Your task to perform on an android device: open app "Messages" (install if not already installed), go to login, and select forgot password Image 0: 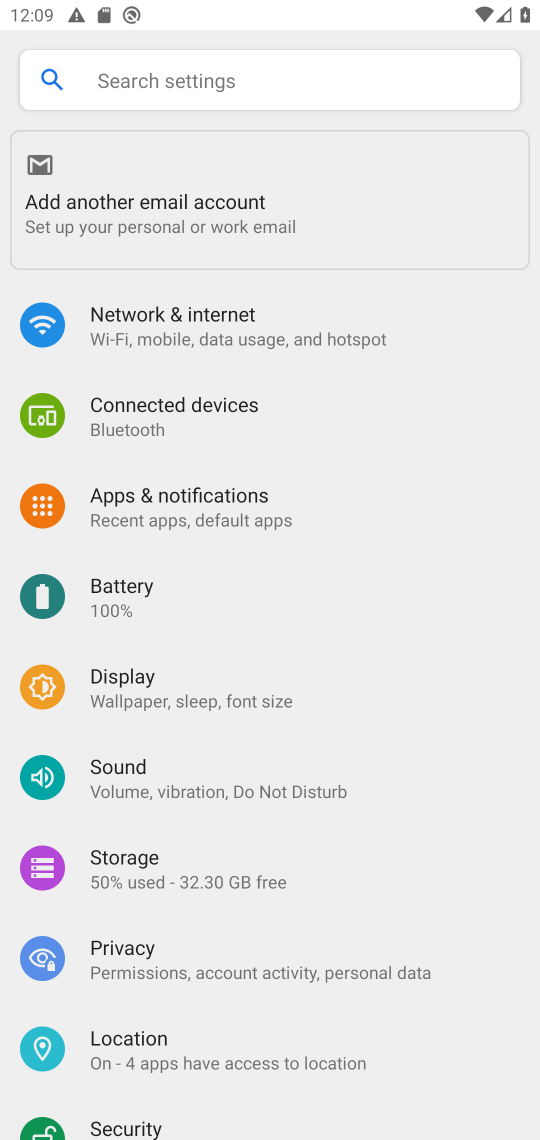
Step 0: press home button
Your task to perform on an android device: open app "Messages" (install if not already installed), go to login, and select forgot password Image 1: 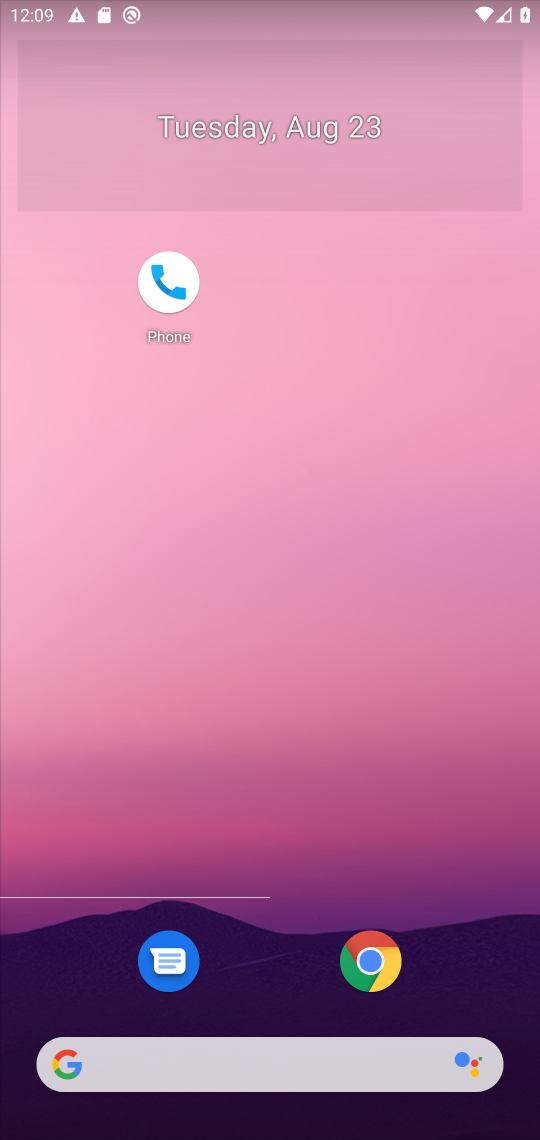
Step 1: drag from (252, 1006) to (391, 113)
Your task to perform on an android device: open app "Messages" (install if not already installed), go to login, and select forgot password Image 2: 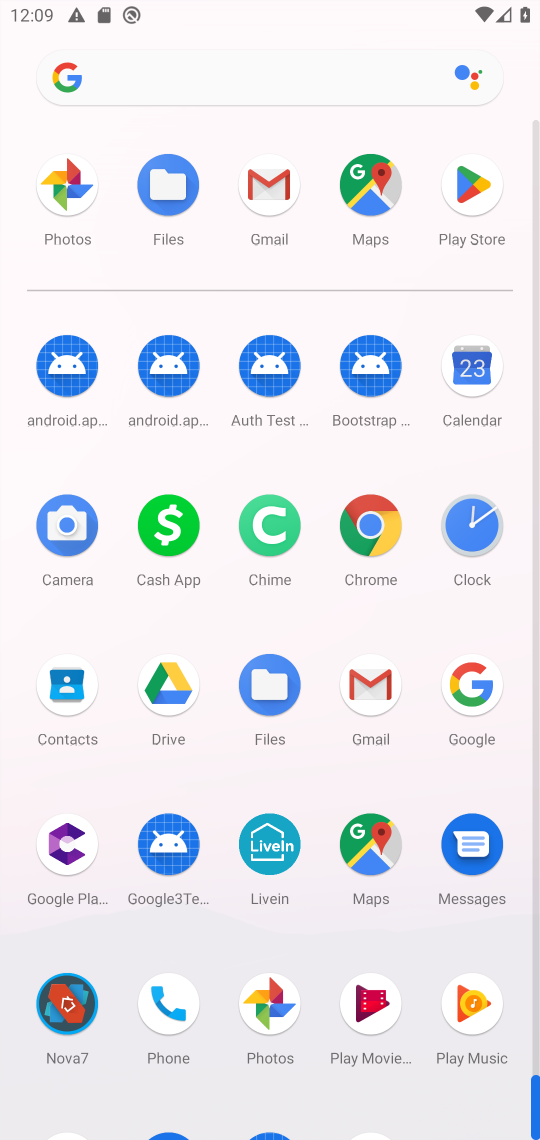
Step 2: click (486, 239)
Your task to perform on an android device: open app "Messages" (install if not already installed), go to login, and select forgot password Image 3: 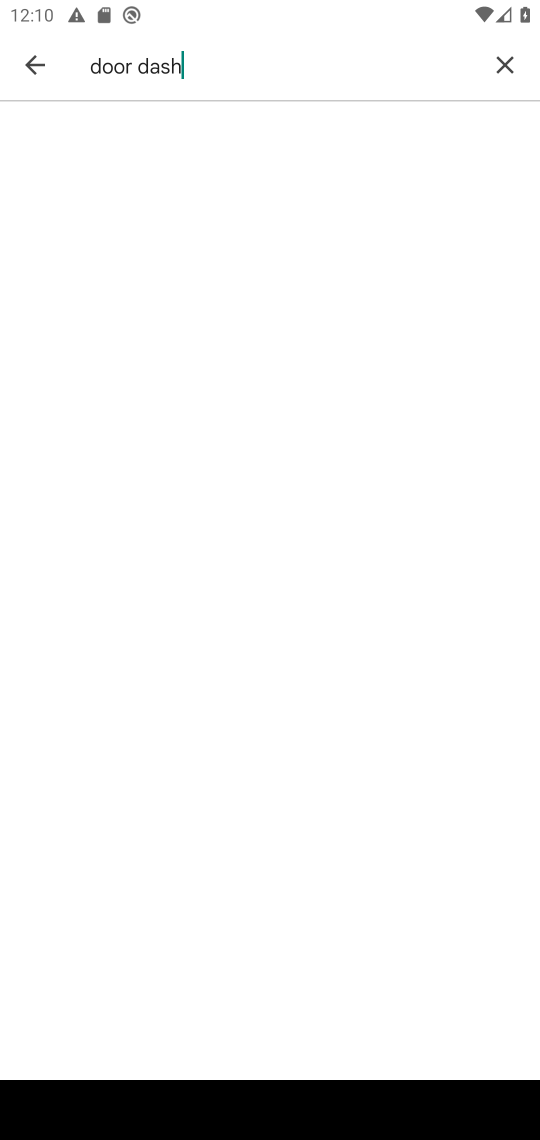
Step 3: click (499, 84)
Your task to perform on an android device: open app "Messages" (install if not already installed), go to login, and select forgot password Image 4: 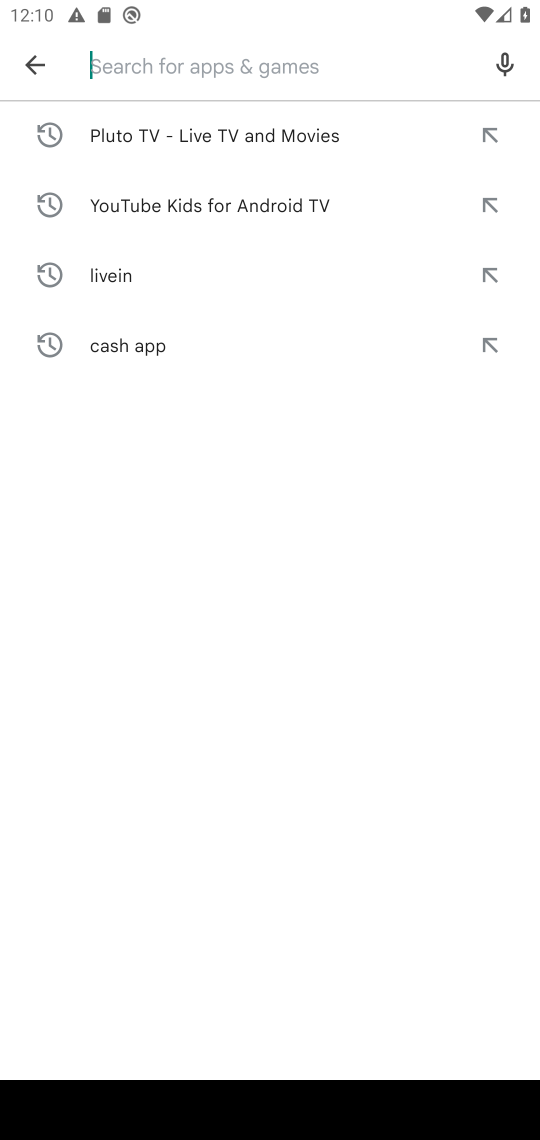
Step 4: type "message"
Your task to perform on an android device: open app "Messages" (install if not already installed), go to login, and select forgot password Image 5: 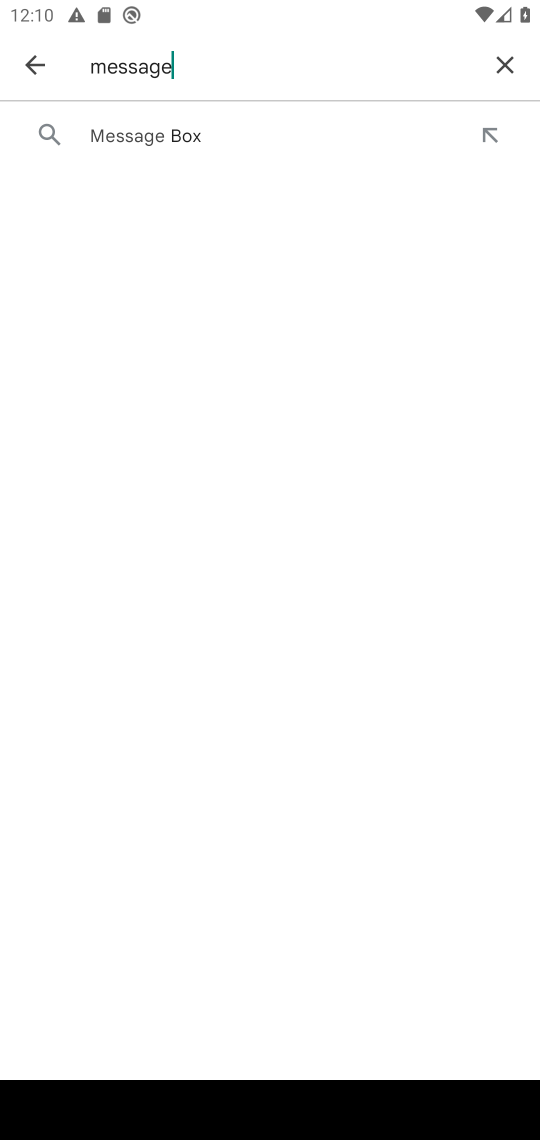
Step 5: click (285, 140)
Your task to perform on an android device: open app "Messages" (install if not already installed), go to login, and select forgot password Image 6: 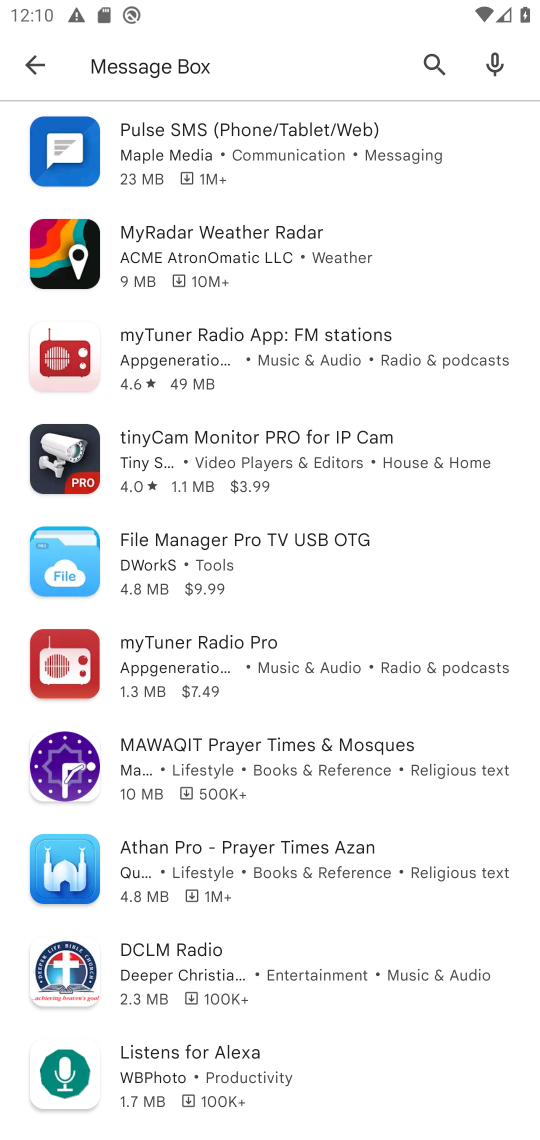
Step 6: task complete